Your task to perform on an android device: Empty the shopping cart on newegg.com. Image 0: 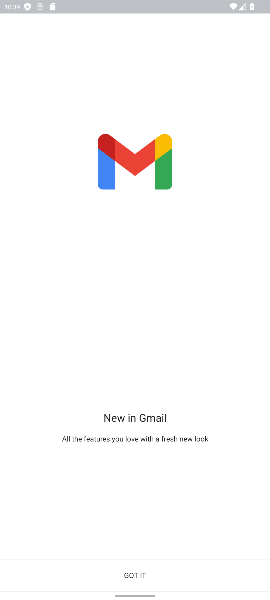
Step 0: press home button
Your task to perform on an android device: Empty the shopping cart on newegg.com. Image 1: 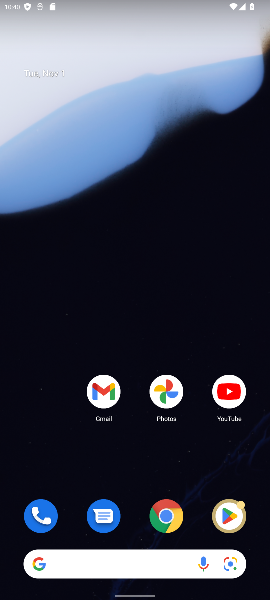
Step 1: task complete